Your task to perform on an android device: What's the weather going to be this weekend? Image 0: 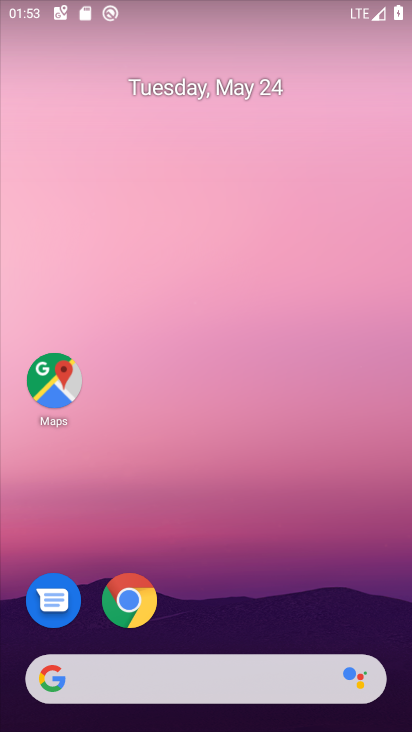
Step 0: click (189, 689)
Your task to perform on an android device: What's the weather going to be this weekend? Image 1: 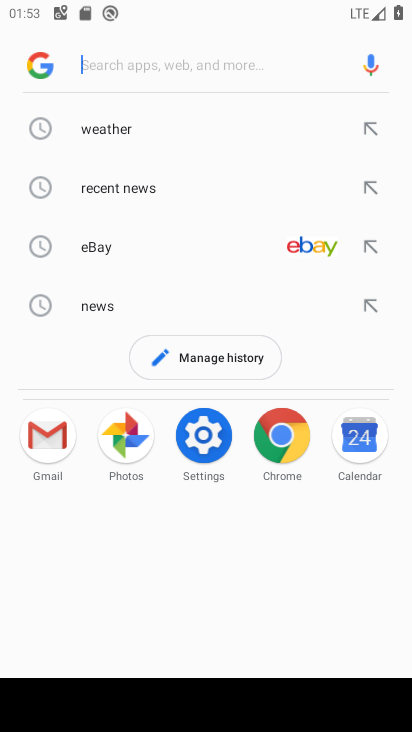
Step 1: click (138, 101)
Your task to perform on an android device: What's the weather going to be this weekend? Image 2: 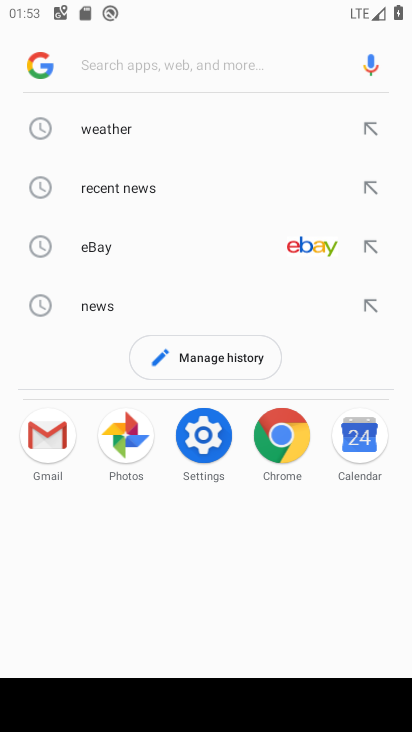
Step 2: click (134, 128)
Your task to perform on an android device: What's the weather going to be this weekend? Image 3: 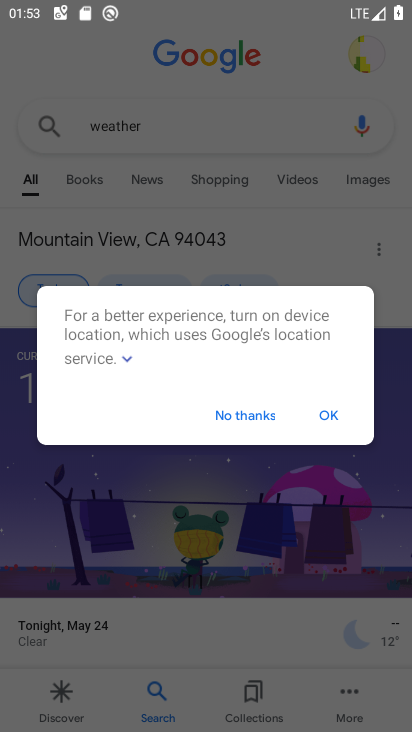
Step 3: click (252, 414)
Your task to perform on an android device: What's the weather going to be this weekend? Image 4: 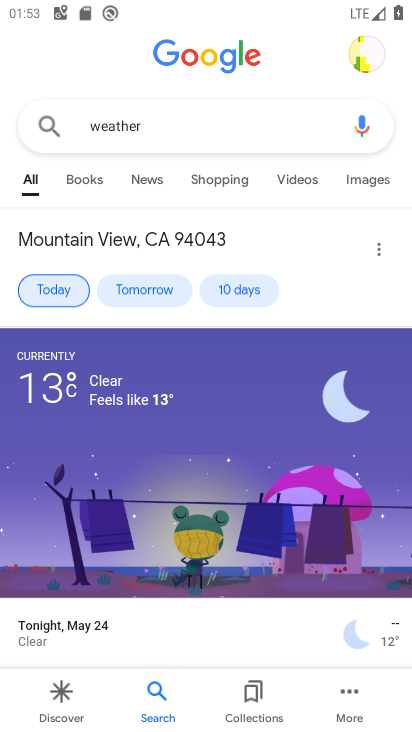
Step 4: click (222, 279)
Your task to perform on an android device: What's the weather going to be this weekend? Image 5: 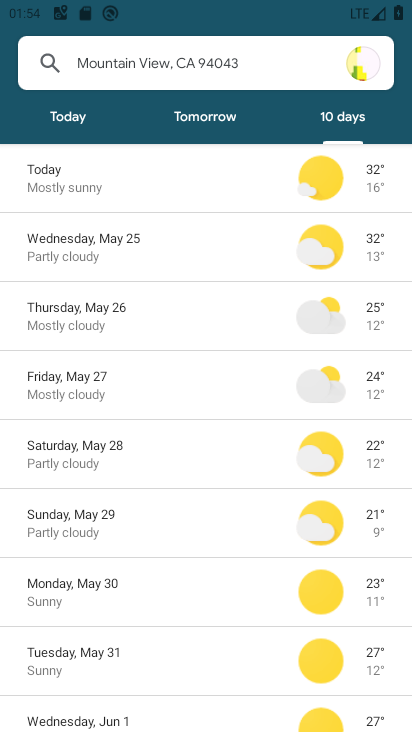
Step 5: task complete